Your task to perform on an android device: open app "Gmail" Image 0: 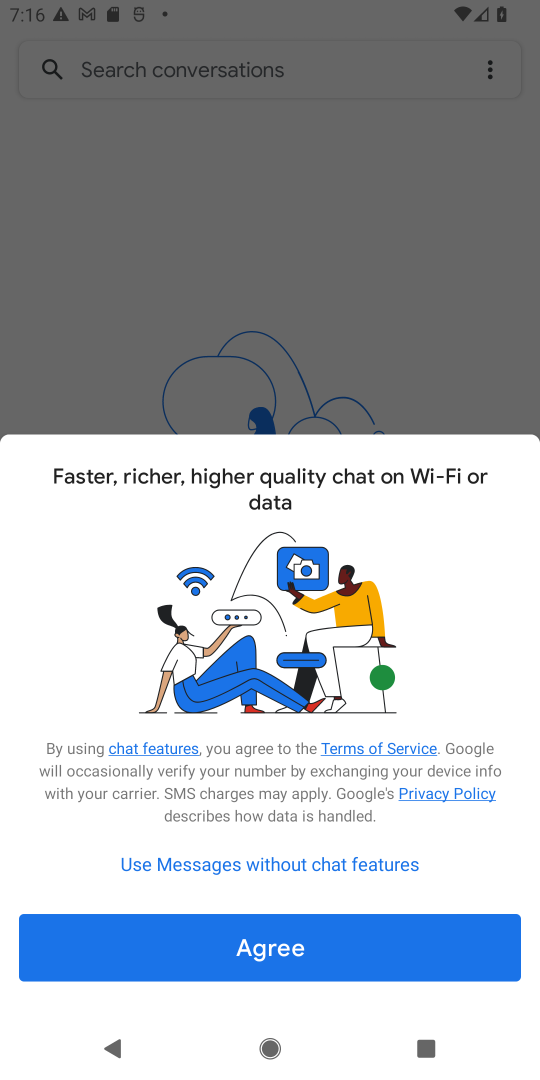
Step 0: press home button
Your task to perform on an android device: open app "Gmail" Image 1: 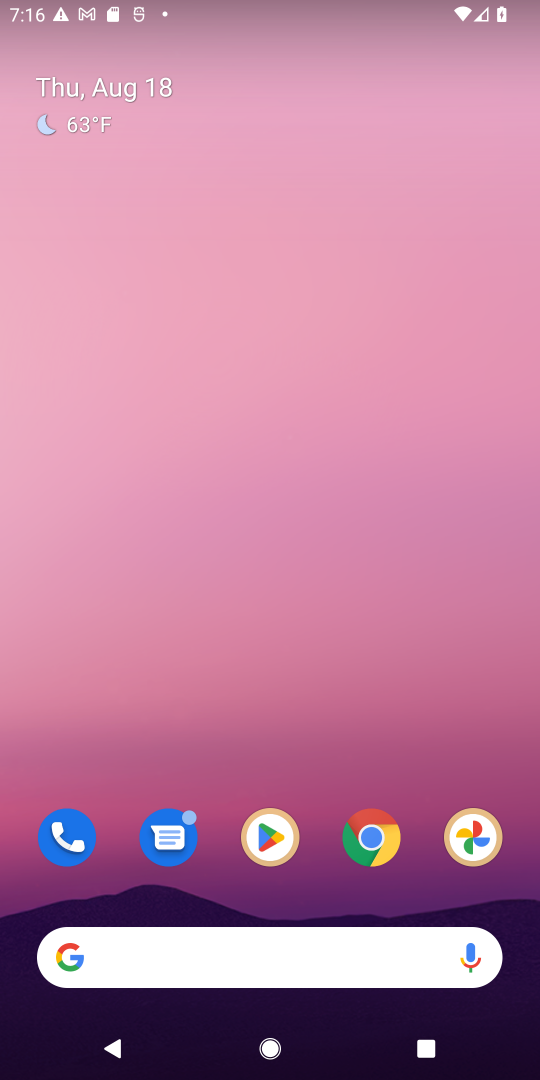
Step 1: drag from (223, 890) to (280, 83)
Your task to perform on an android device: open app "Gmail" Image 2: 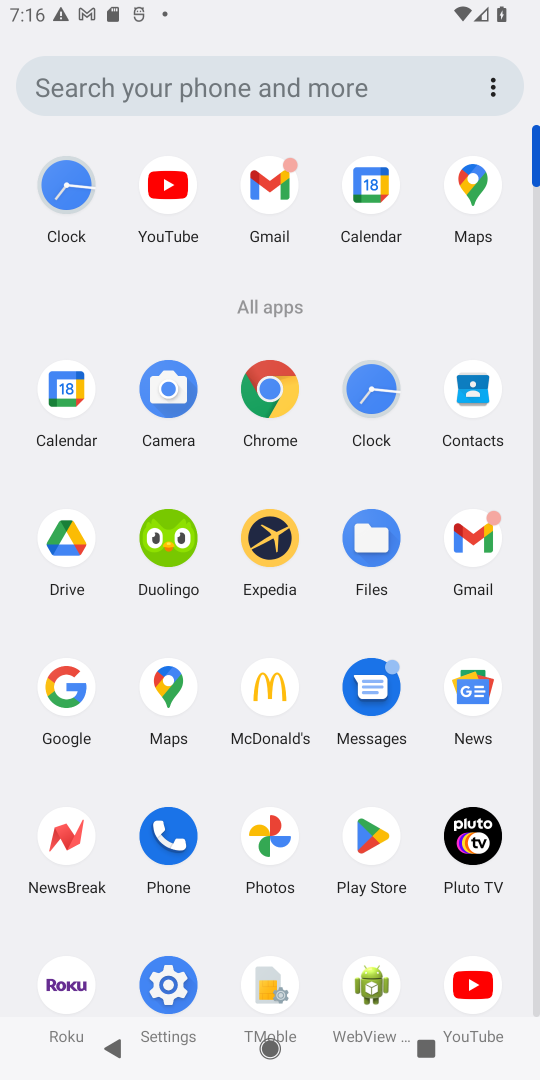
Step 2: click (378, 843)
Your task to perform on an android device: open app "Gmail" Image 3: 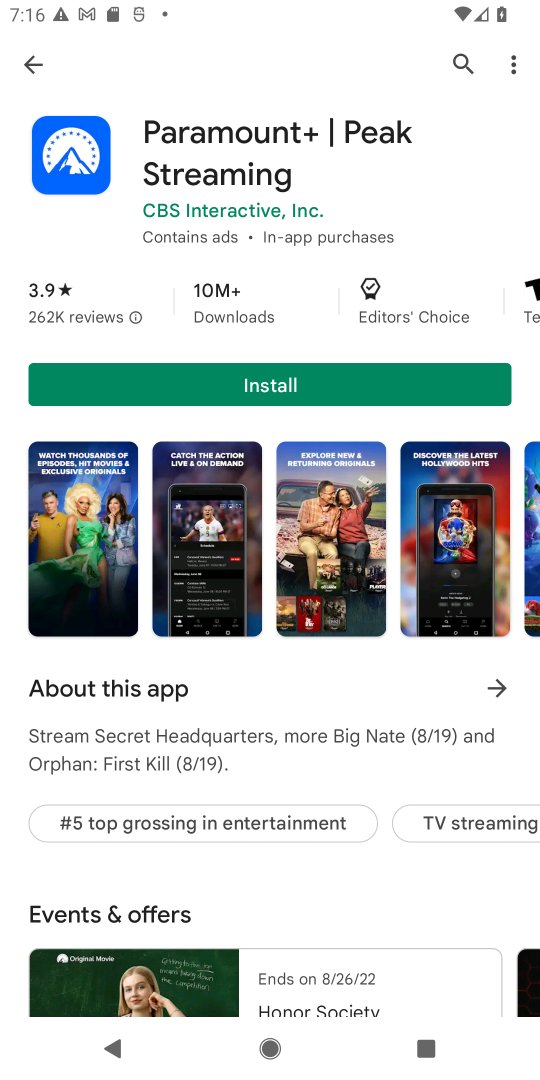
Step 3: click (29, 61)
Your task to perform on an android device: open app "Gmail" Image 4: 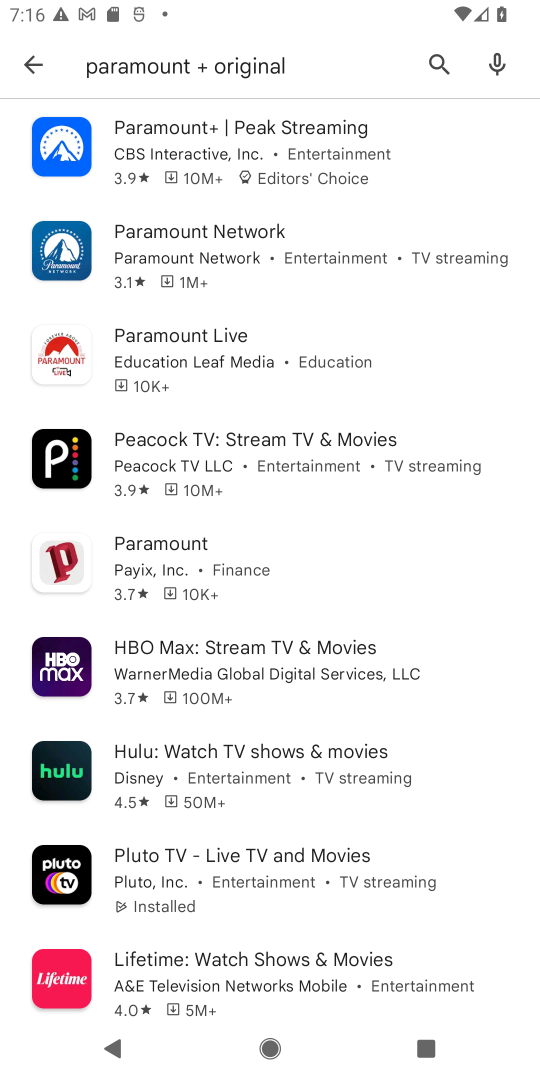
Step 4: click (197, 69)
Your task to perform on an android device: open app "Gmail" Image 5: 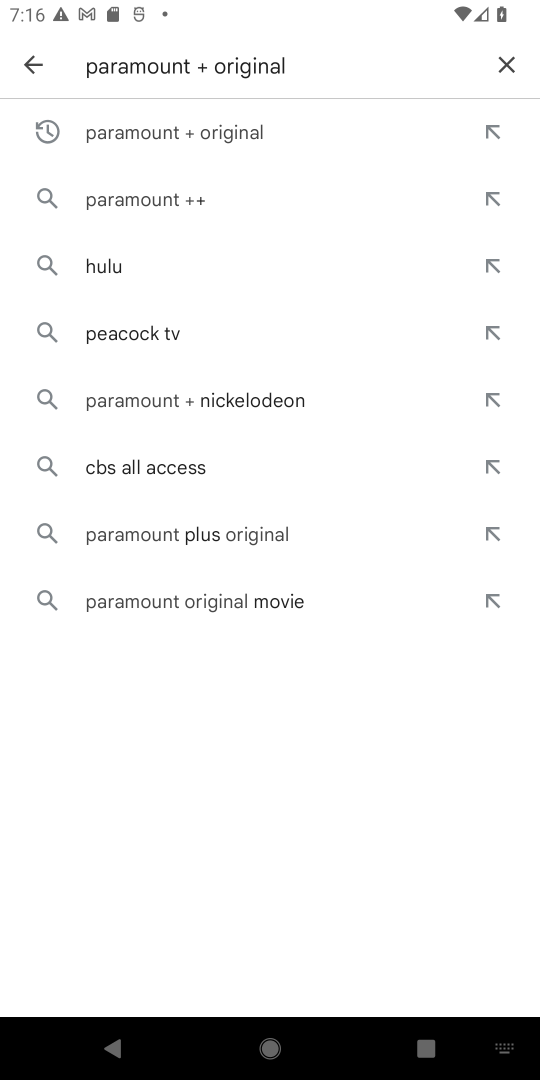
Step 5: click (502, 54)
Your task to perform on an android device: open app "Gmail" Image 6: 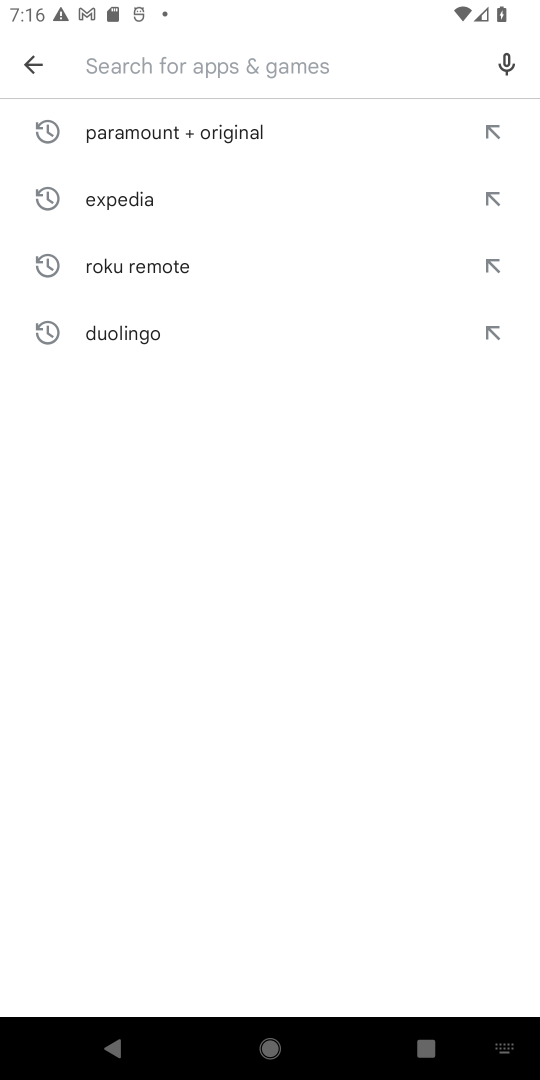
Step 6: type "gmail"
Your task to perform on an android device: open app "Gmail" Image 7: 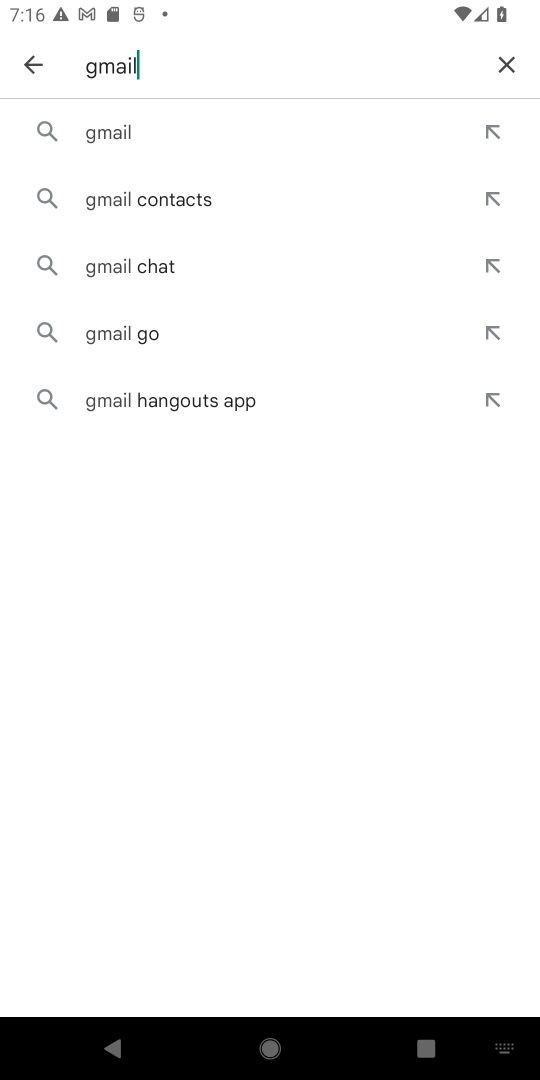
Step 7: click (104, 143)
Your task to perform on an android device: open app "Gmail" Image 8: 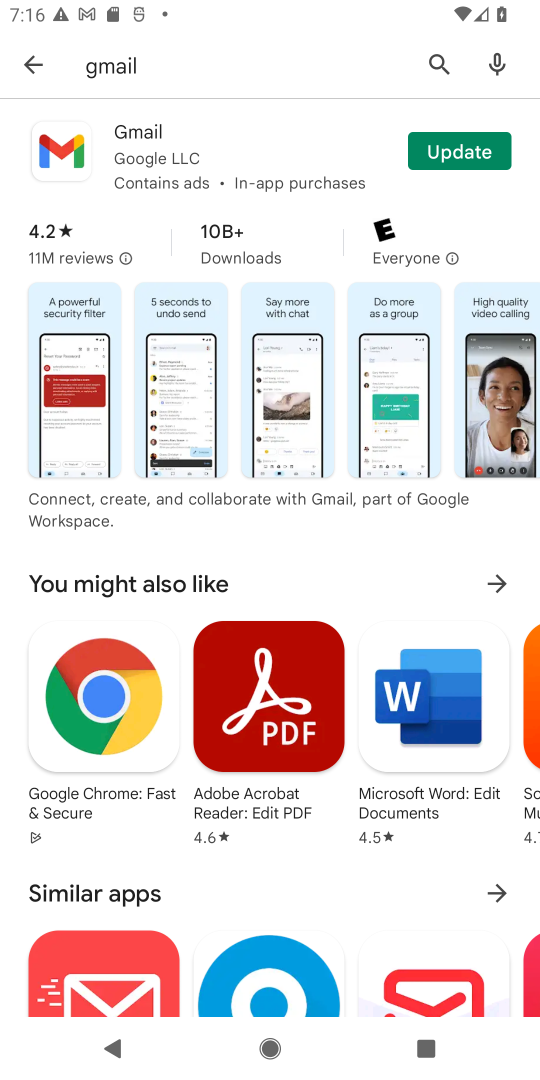
Step 8: click (463, 156)
Your task to perform on an android device: open app "Gmail" Image 9: 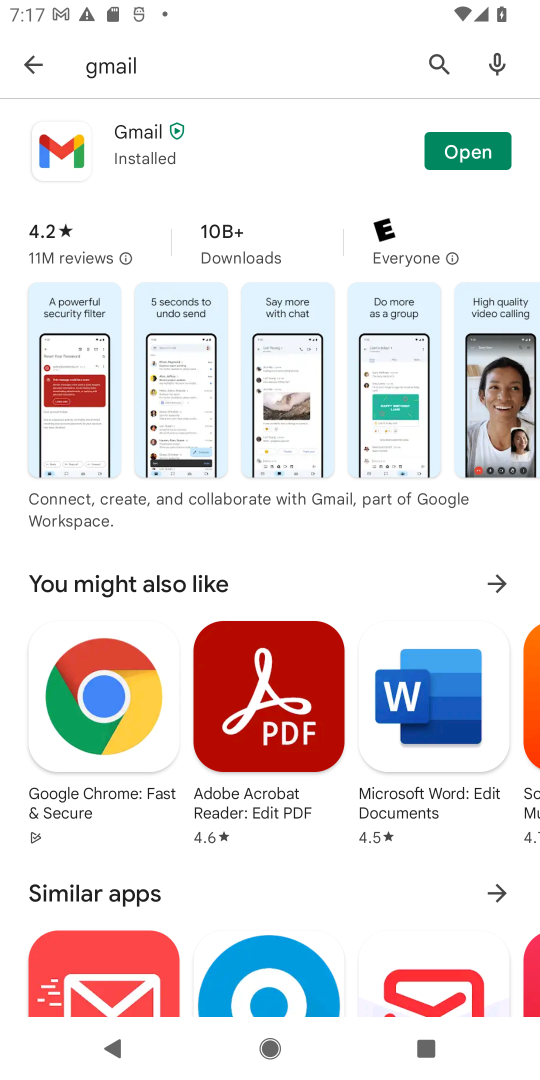
Step 9: click (453, 148)
Your task to perform on an android device: open app "Gmail" Image 10: 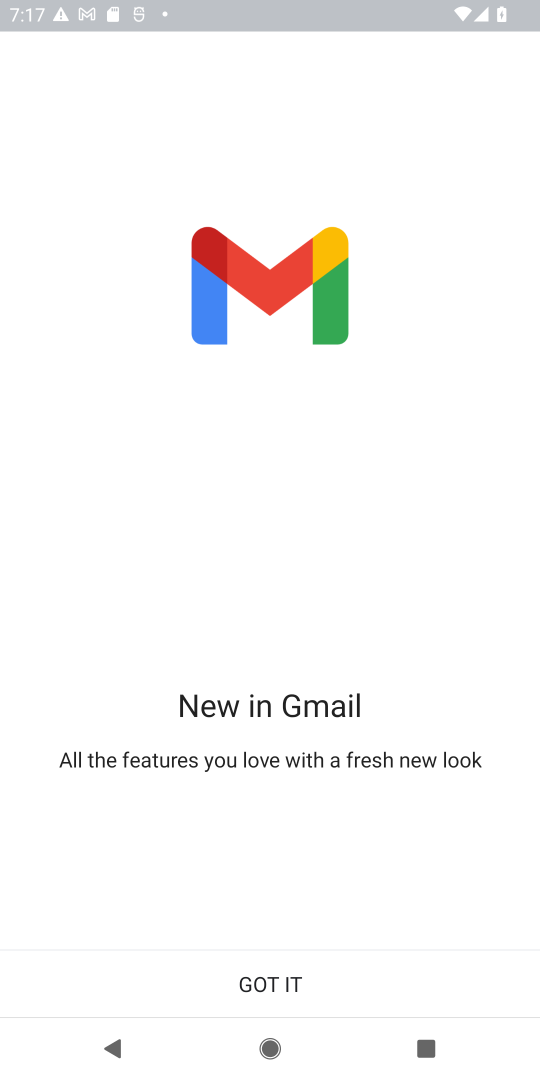
Step 10: click (277, 994)
Your task to perform on an android device: open app "Gmail" Image 11: 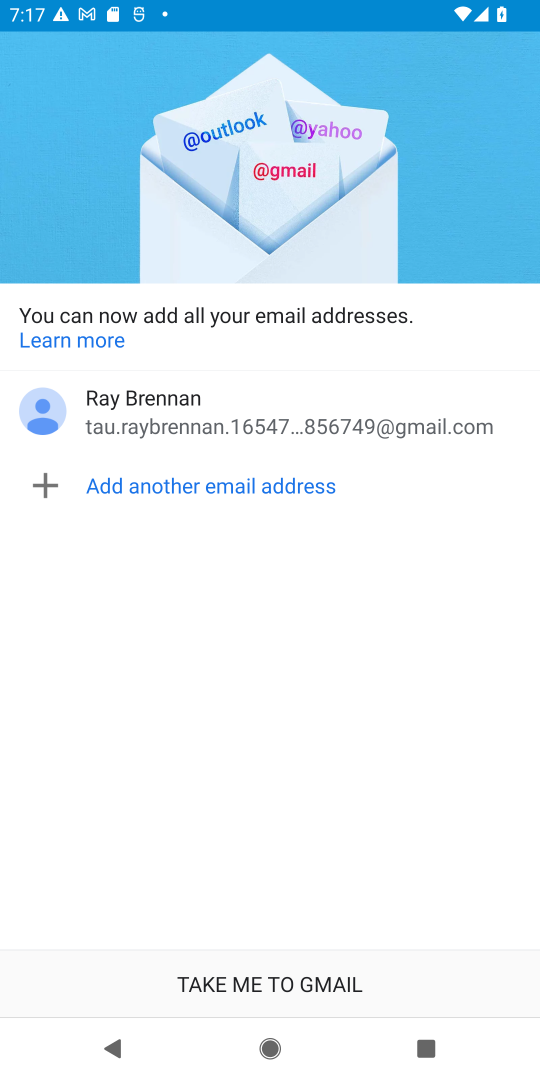
Step 11: click (241, 978)
Your task to perform on an android device: open app "Gmail" Image 12: 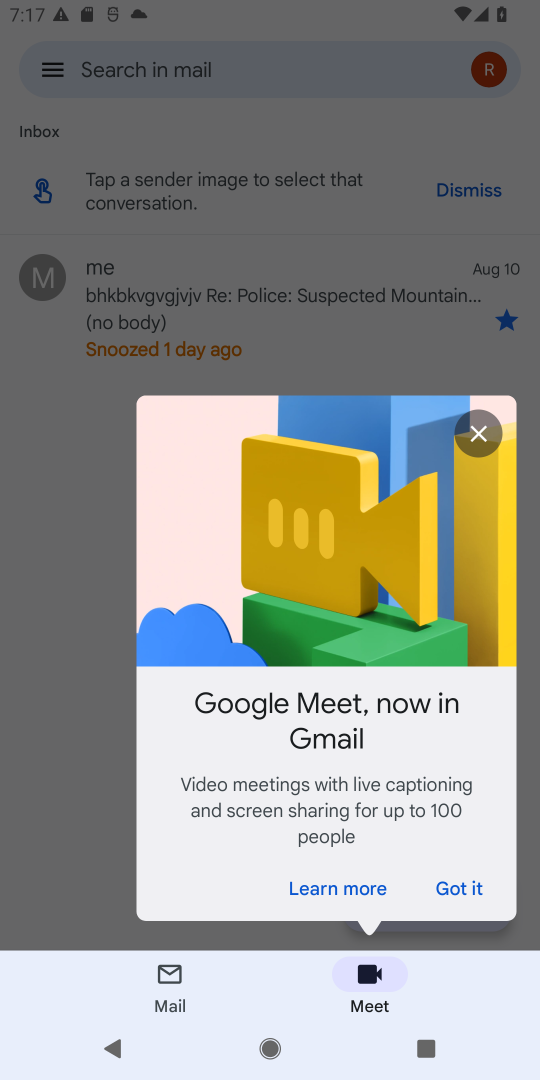
Step 12: click (478, 419)
Your task to perform on an android device: open app "Gmail" Image 13: 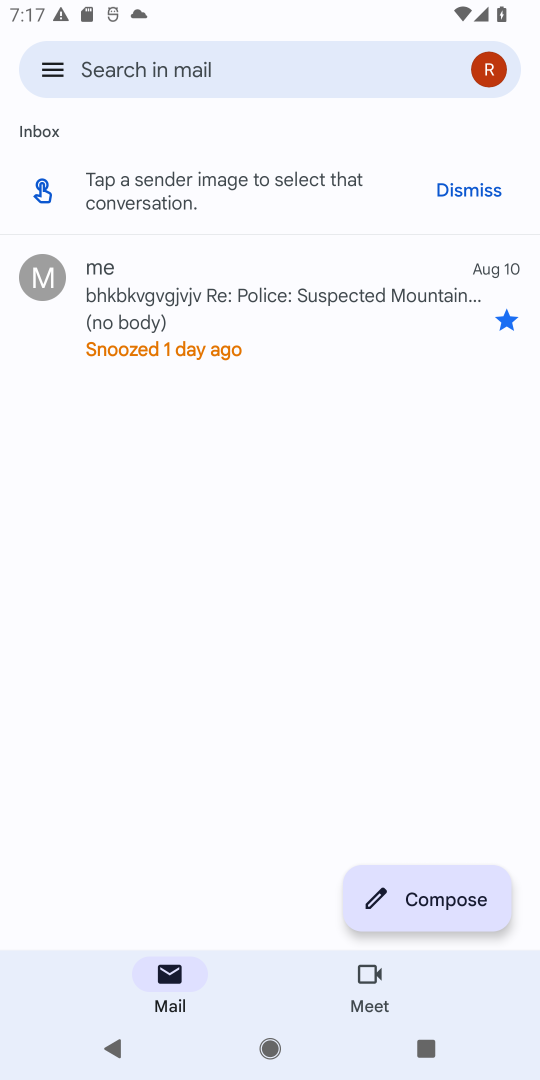
Step 13: task complete